Your task to perform on an android device: open app "Microsoft Outlook" (install if not already installed), go to login, and select forgot password Image 0: 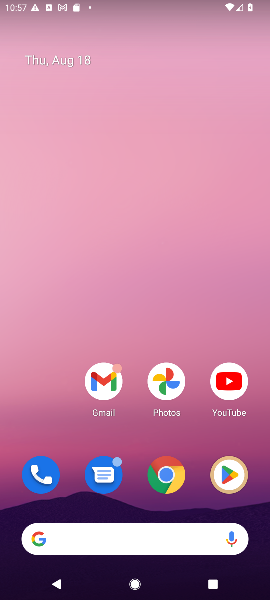
Step 0: drag from (134, 512) to (115, 29)
Your task to perform on an android device: open app "Microsoft Outlook" (install if not already installed), go to login, and select forgot password Image 1: 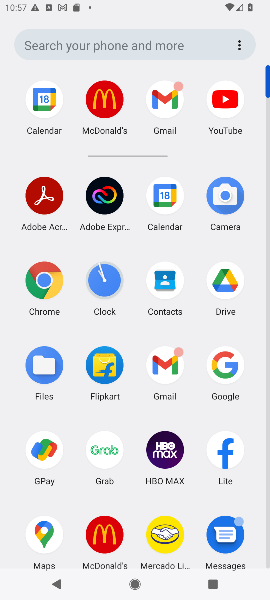
Step 1: drag from (137, 502) to (125, 128)
Your task to perform on an android device: open app "Microsoft Outlook" (install if not already installed), go to login, and select forgot password Image 2: 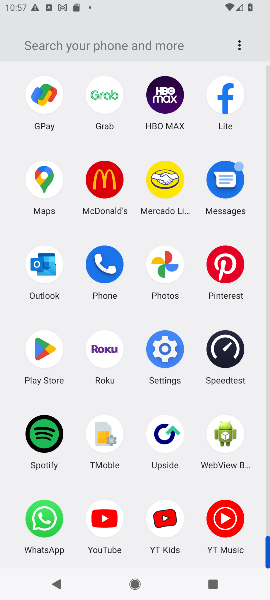
Step 2: click (39, 354)
Your task to perform on an android device: open app "Microsoft Outlook" (install if not already installed), go to login, and select forgot password Image 3: 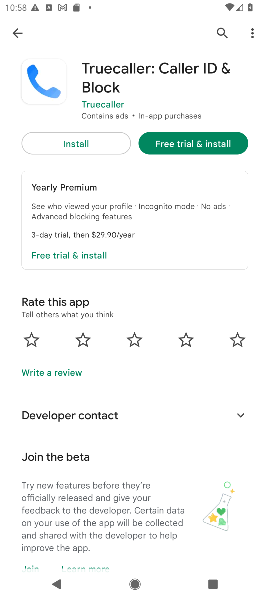
Step 3: click (11, 36)
Your task to perform on an android device: open app "Microsoft Outlook" (install if not already installed), go to login, and select forgot password Image 4: 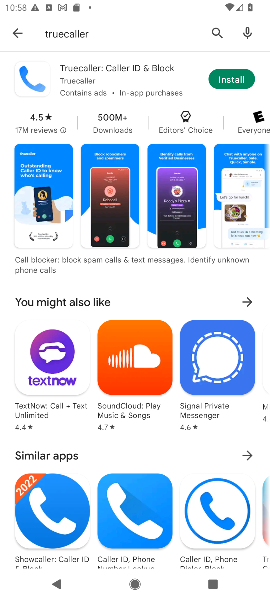
Step 4: click (13, 32)
Your task to perform on an android device: open app "Microsoft Outlook" (install if not already installed), go to login, and select forgot password Image 5: 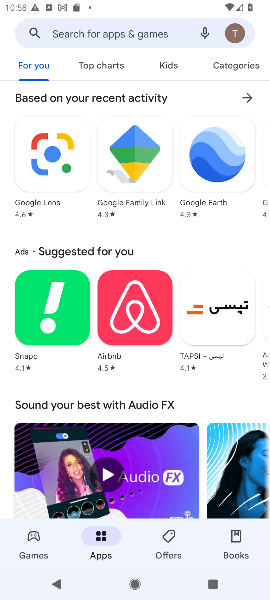
Step 5: click (67, 24)
Your task to perform on an android device: open app "Microsoft Outlook" (install if not already installed), go to login, and select forgot password Image 6: 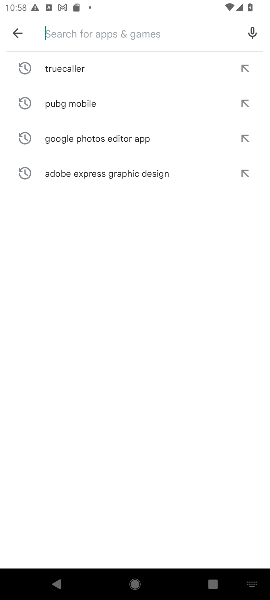
Step 6: type "Microsoft Outlook"
Your task to perform on an android device: open app "Microsoft Outlook" (install if not already installed), go to login, and select forgot password Image 7: 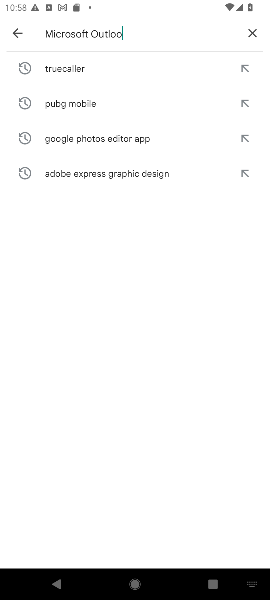
Step 7: type ""
Your task to perform on an android device: open app "Microsoft Outlook" (install if not already installed), go to login, and select forgot password Image 8: 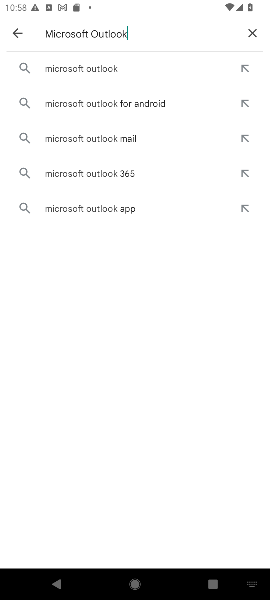
Step 8: click (81, 65)
Your task to perform on an android device: open app "Microsoft Outlook" (install if not already installed), go to login, and select forgot password Image 9: 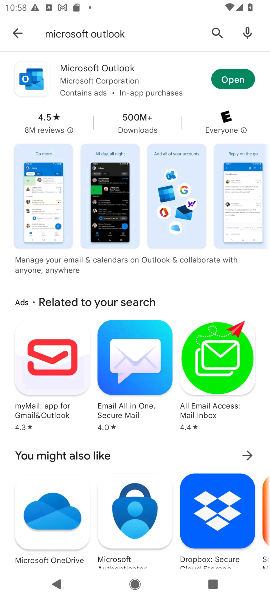
Step 9: click (229, 90)
Your task to perform on an android device: open app "Microsoft Outlook" (install if not already installed), go to login, and select forgot password Image 10: 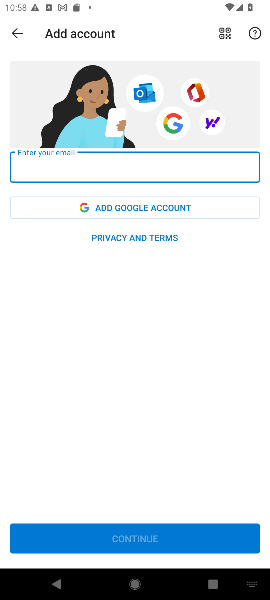
Step 10: click (159, 534)
Your task to perform on an android device: open app "Microsoft Outlook" (install if not already installed), go to login, and select forgot password Image 11: 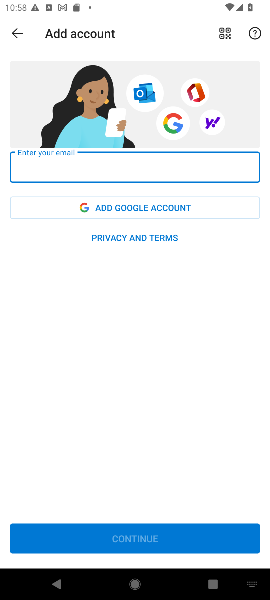
Step 11: click (259, 36)
Your task to perform on an android device: open app "Microsoft Outlook" (install if not already installed), go to login, and select forgot password Image 12: 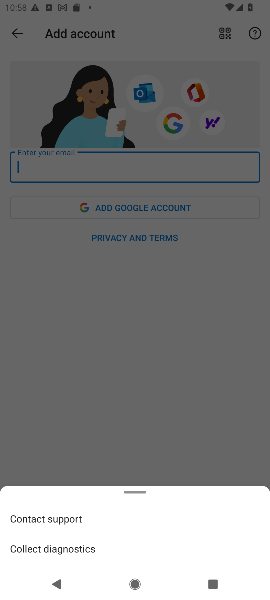
Step 12: click (254, 358)
Your task to perform on an android device: open app "Microsoft Outlook" (install if not already installed), go to login, and select forgot password Image 13: 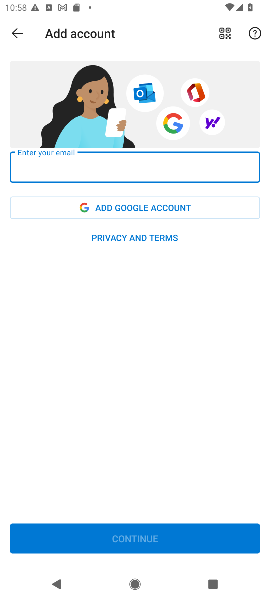
Step 13: click (173, 162)
Your task to perform on an android device: open app "Microsoft Outlook" (install if not already installed), go to login, and select forgot password Image 14: 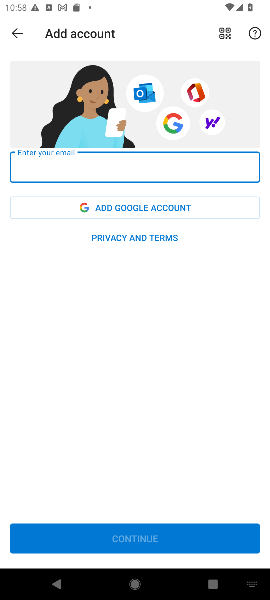
Step 14: task complete